Your task to perform on an android device: turn off data saver in the chrome app Image 0: 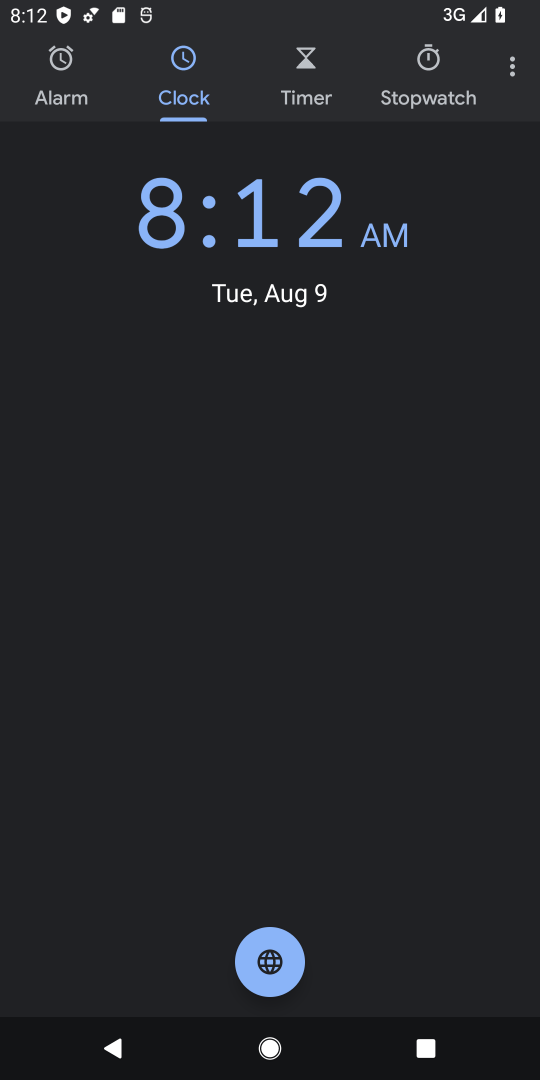
Step 0: press home button
Your task to perform on an android device: turn off data saver in the chrome app Image 1: 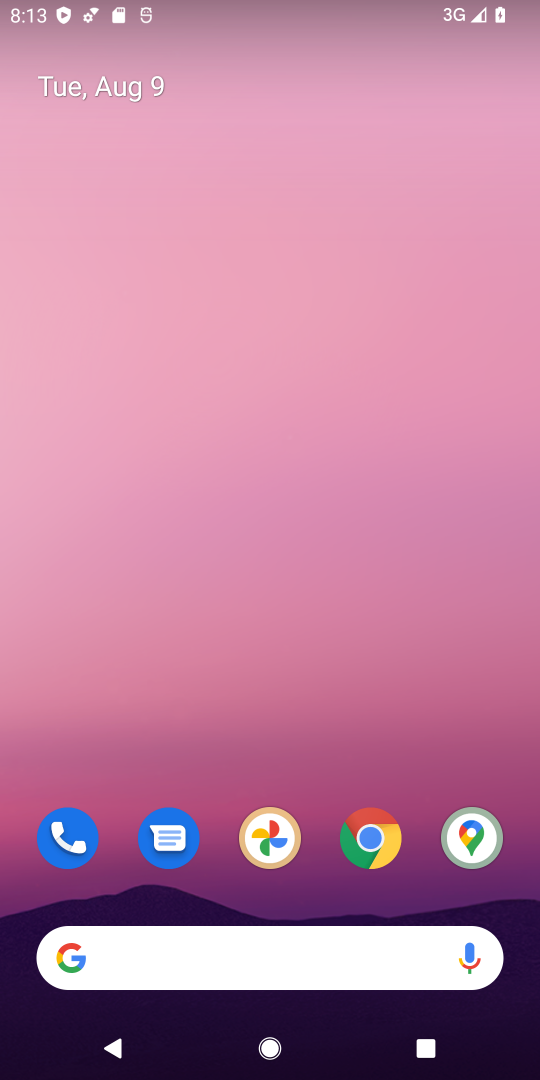
Step 1: click (358, 838)
Your task to perform on an android device: turn off data saver in the chrome app Image 2: 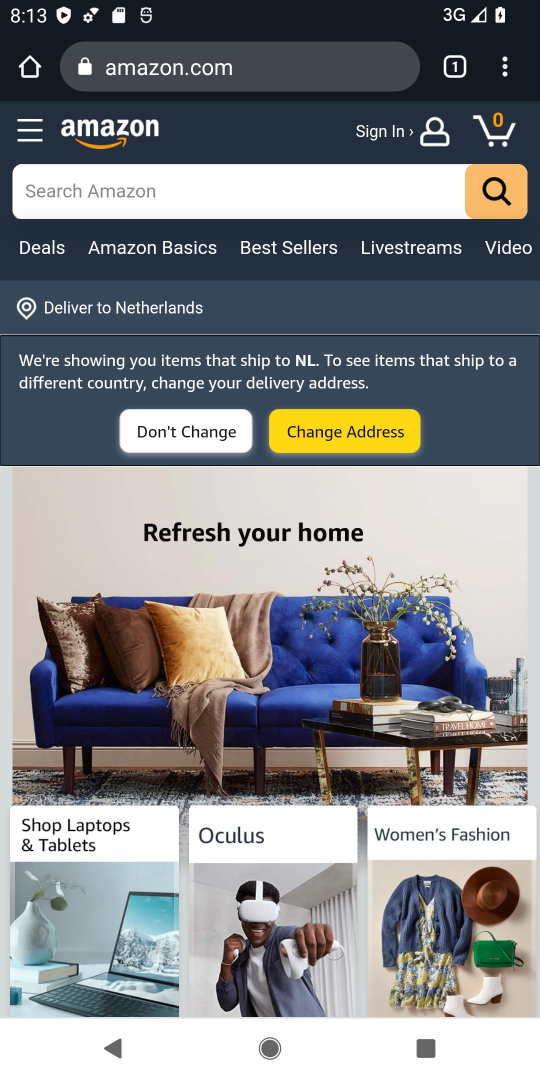
Step 2: drag from (501, 68) to (318, 768)
Your task to perform on an android device: turn off data saver in the chrome app Image 3: 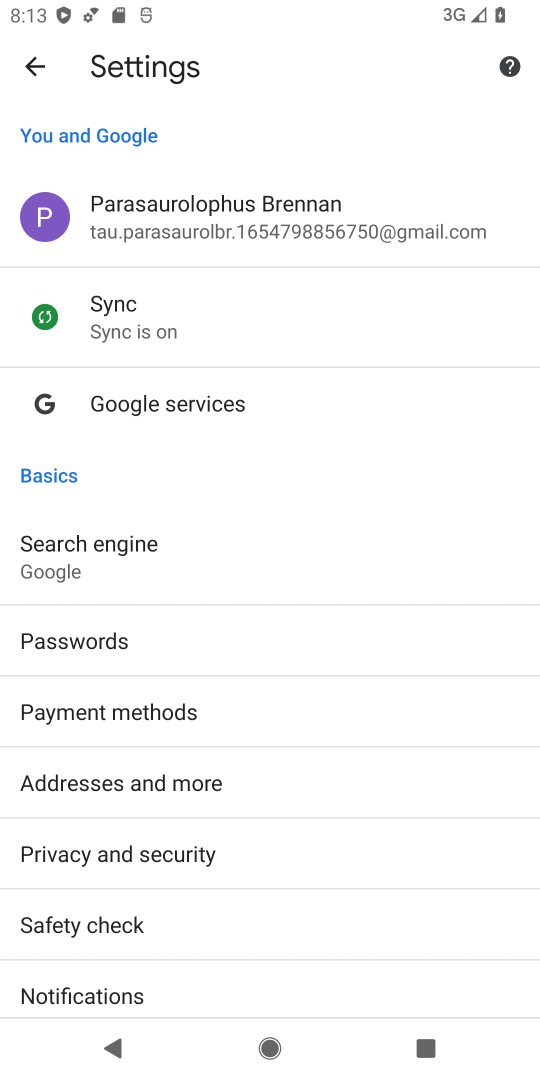
Step 3: drag from (204, 870) to (166, 331)
Your task to perform on an android device: turn off data saver in the chrome app Image 4: 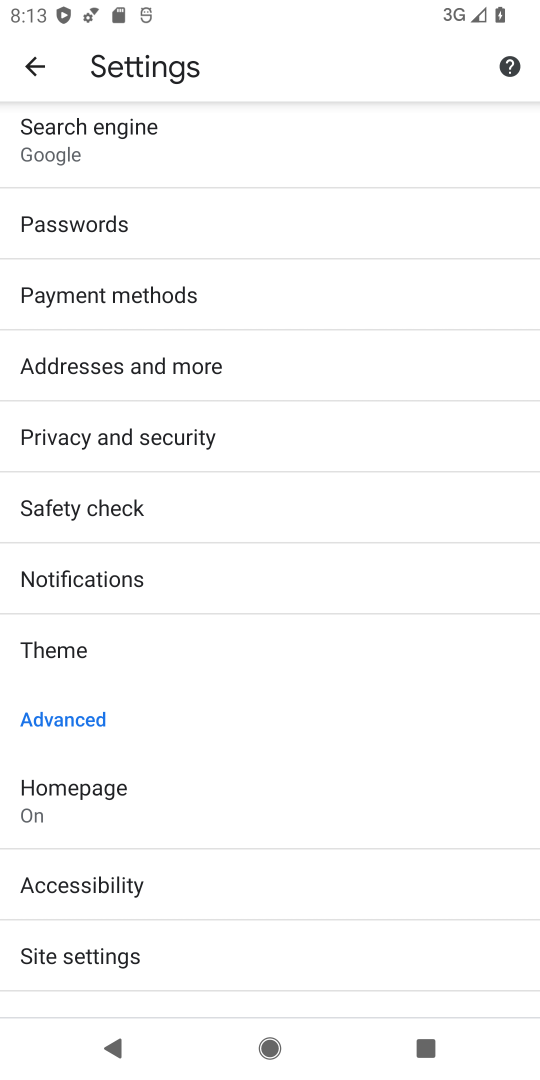
Step 4: drag from (143, 935) to (107, 434)
Your task to perform on an android device: turn off data saver in the chrome app Image 5: 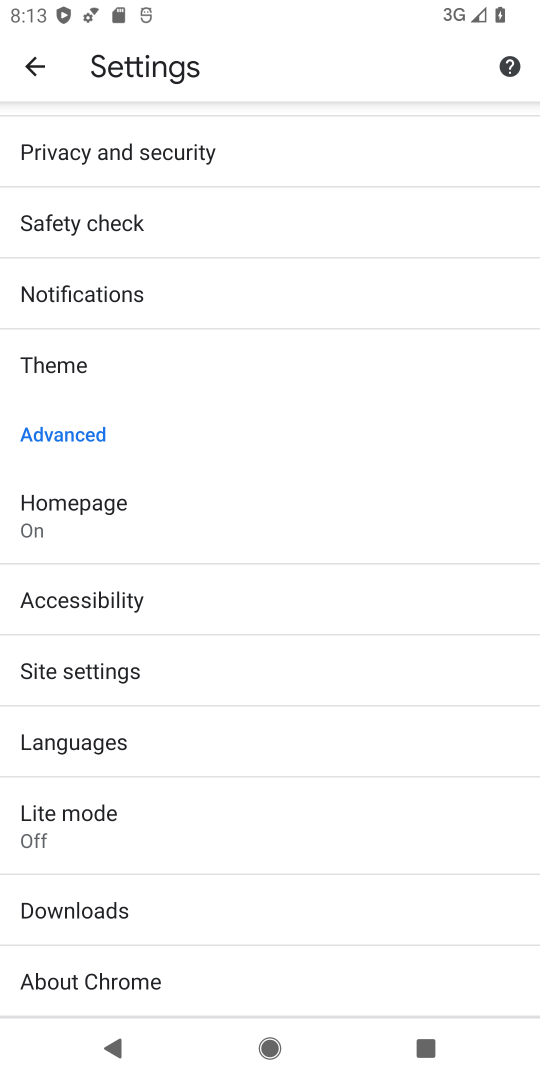
Step 5: click (92, 809)
Your task to perform on an android device: turn off data saver in the chrome app Image 6: 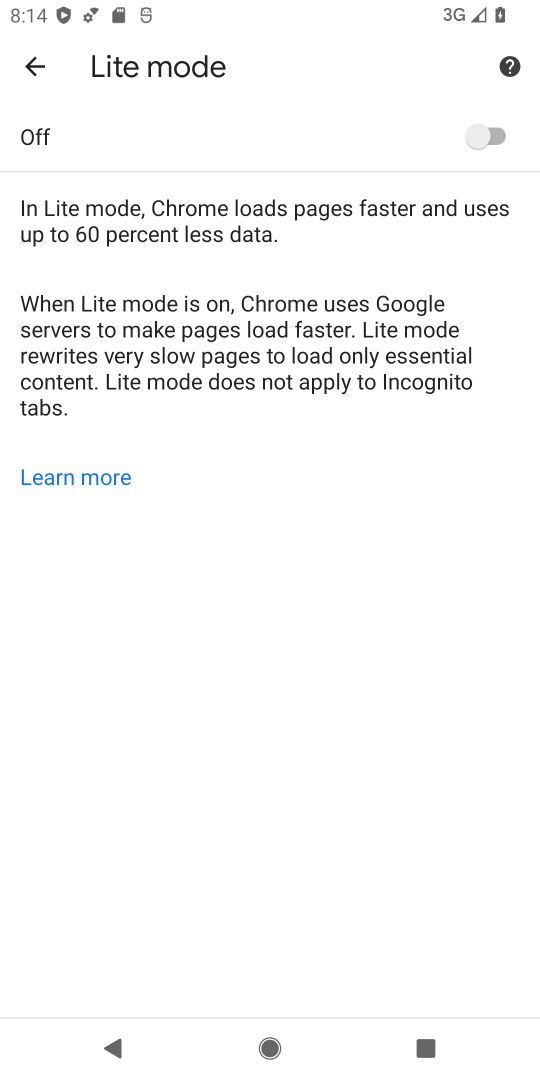
Step 6: task complete